Your task to perform on an android device: Go to wifi settings Image 0: 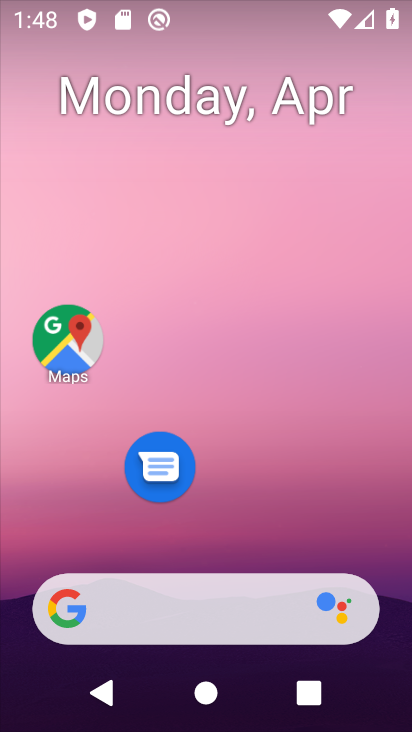
Step 0: drag from (263, 93) to (269, 23)
Your task to perform on an android device: Go to wifi settings Image 1: 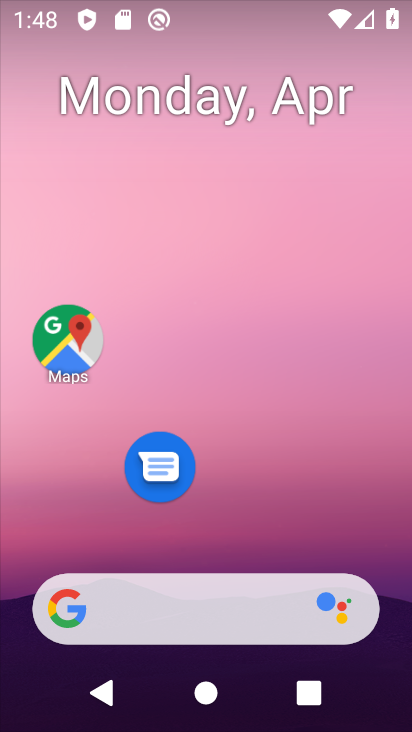
Step 1: drag from (277, 496) to (304, 1)
Your task to perform on an android device: Go to wifi settings Image 2: 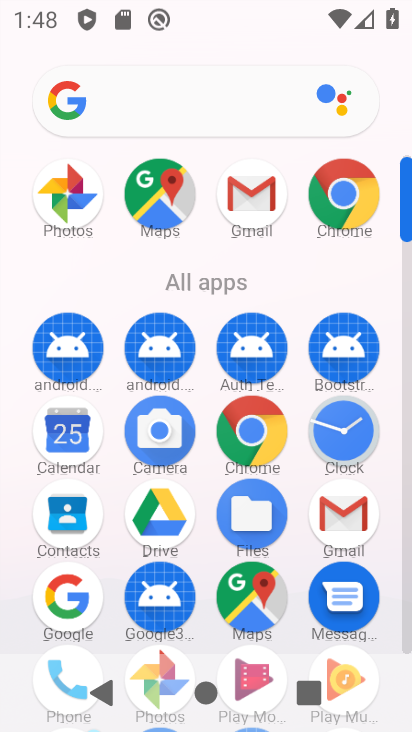
Step 2: drag from (184, 524) to (210, 198)
Your task to perform on an android device: Go to wifi settings Image 3: 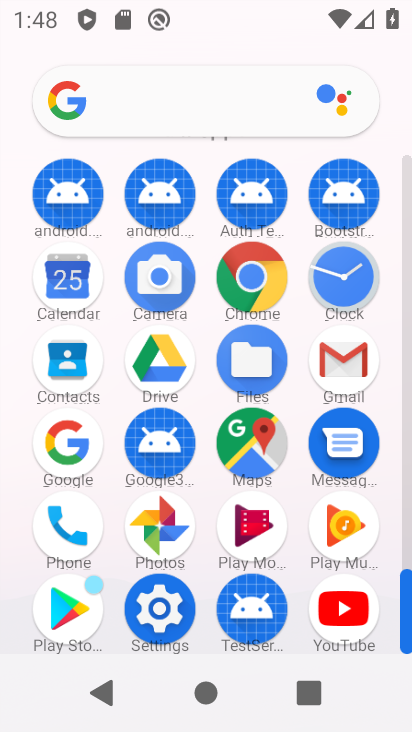
Step 3: click (157, 609)
Your task to perform on an android device: Go to wifi settings Image 4: 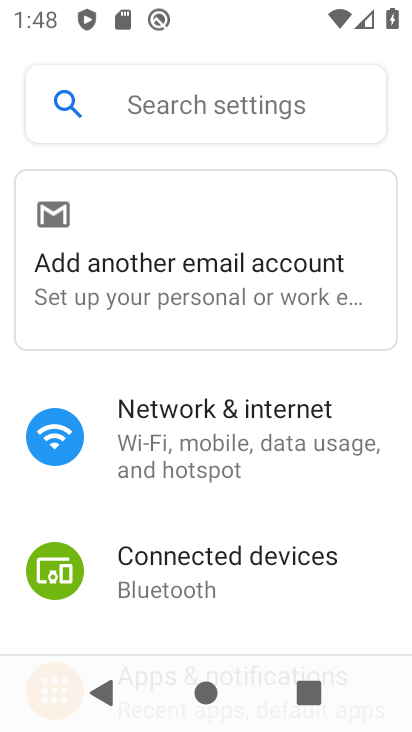
Step 4: click (246, 427)
Your task to perform on an android device: Go to wifi settings Image 5: 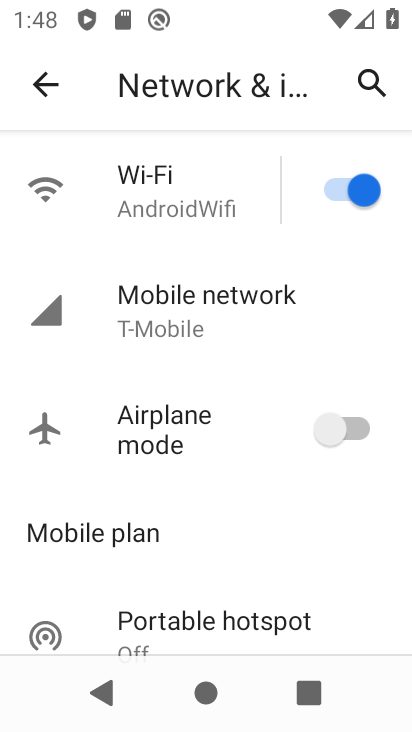
Step 5: click (124, 192)
Your task to perform on an android device: Go to wifi settings Image 6: 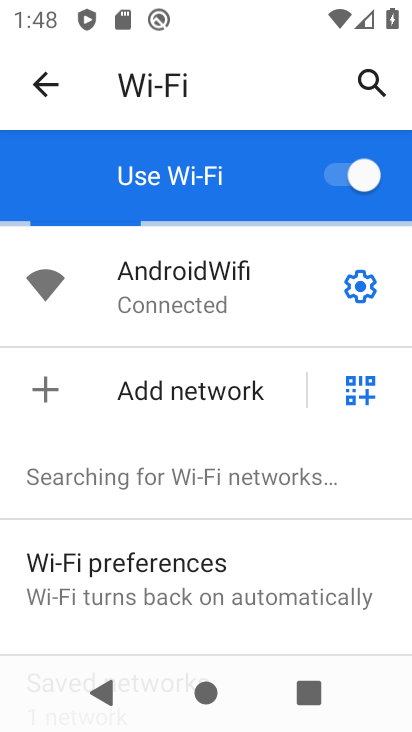
Step 6: task complete